Your task to perform on an android device: toggle data saver in the chrome app Image 0: 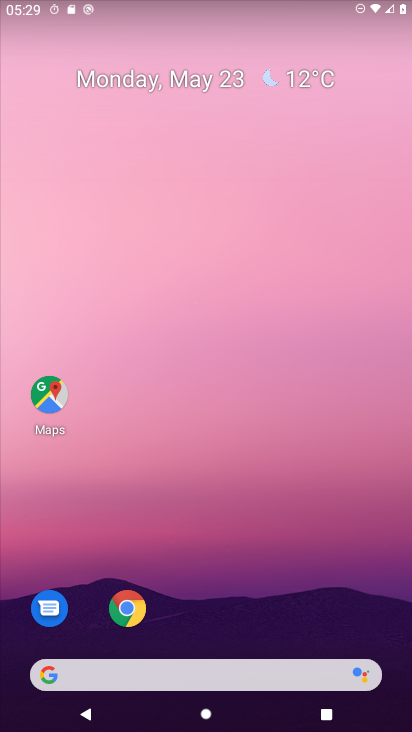
Step 0: click (145, 615)
Your task to perform on an android device: toggle data saver in the chrome app Image 1: 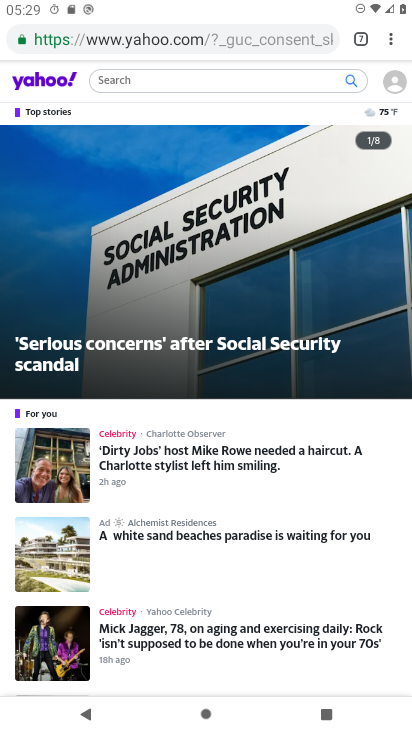
Step 1: click (384, 36)
Your task to perform on an android device: toggle data saver in the chrome app Image 2: 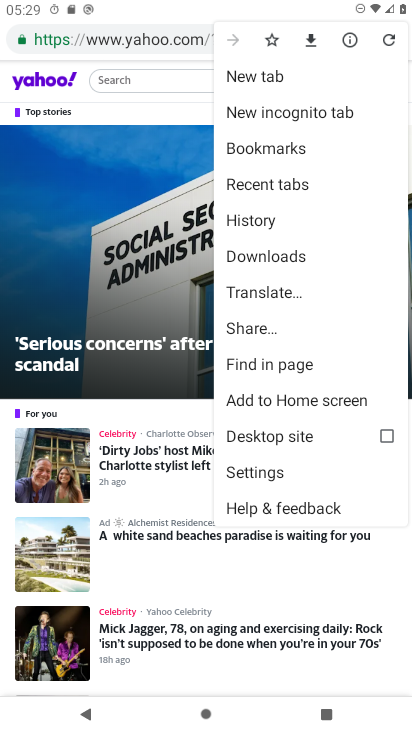
Step 2: click (280, 466)
Your task to perform on an android device: toggle data saver in the chrome app Image 3: 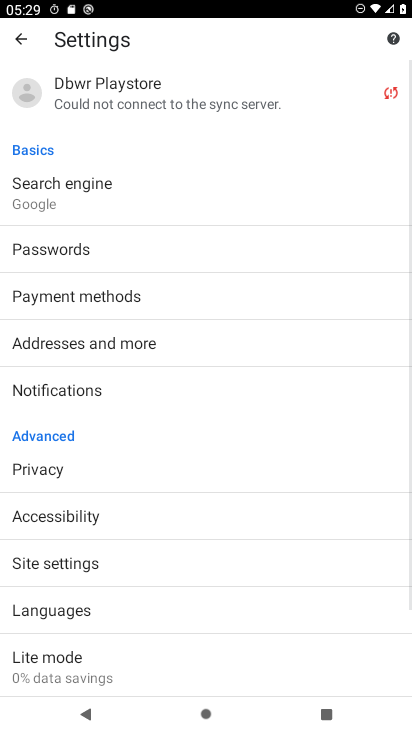
Step 3: click (146, 663)
Your task to perform on an android device: toggle data saver in the chrome app Image 4: 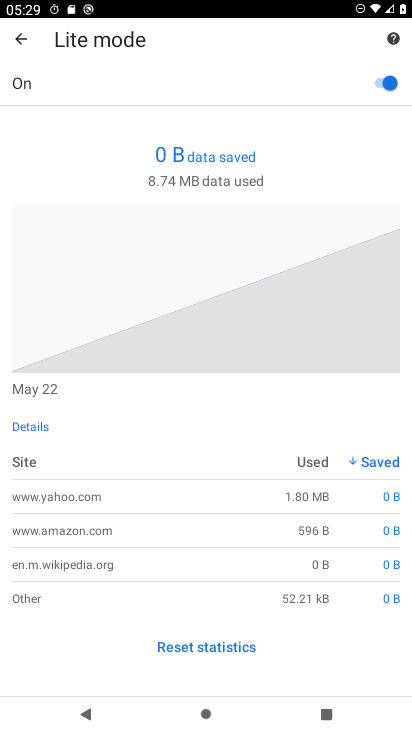
Step 4: click (390, 73)
Your task to perform on an android device: toggle data saver in the chrome app Image 5: 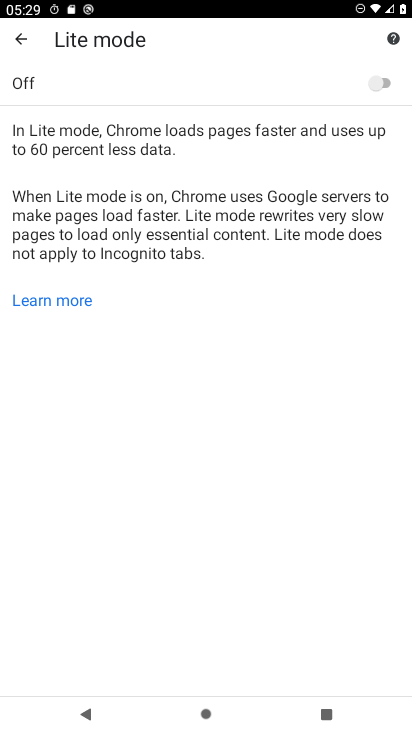
Step 5: task complete